Your task to perform on an android device: Turn on the flashlight Image 0: 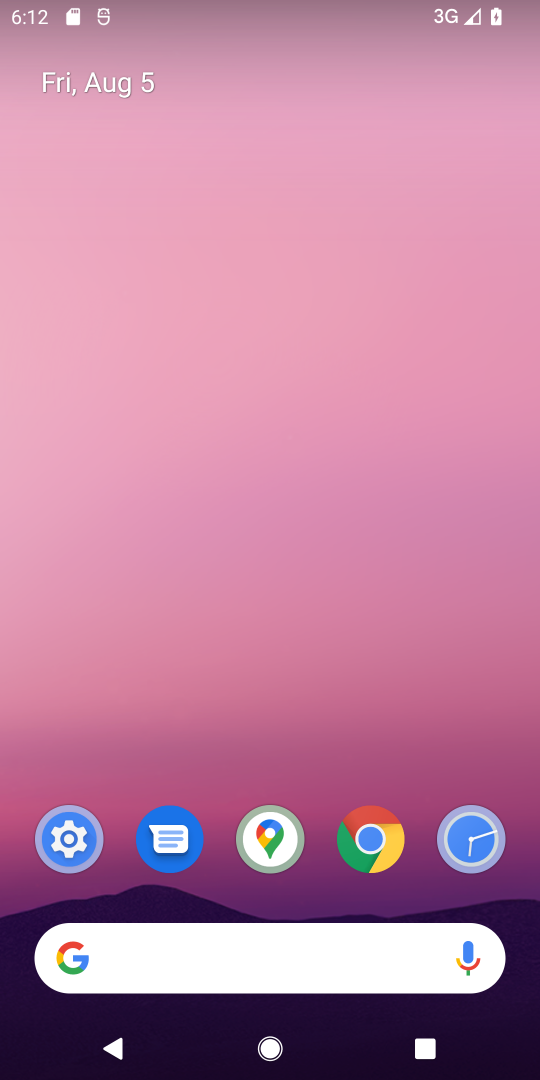
Step 0: drag from (276, 496) to (276, 111)
Your task to perform on an android device: Turn on the flashlight Image 1: 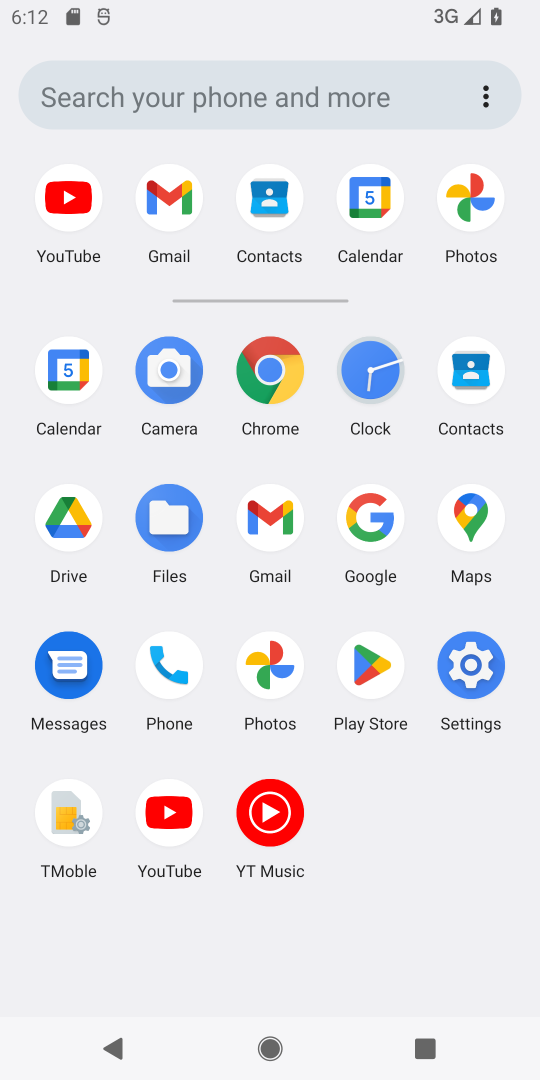
Step 1: click (468, 710)
Your task to perform on an android device: Turn on the flashlight Image 2: 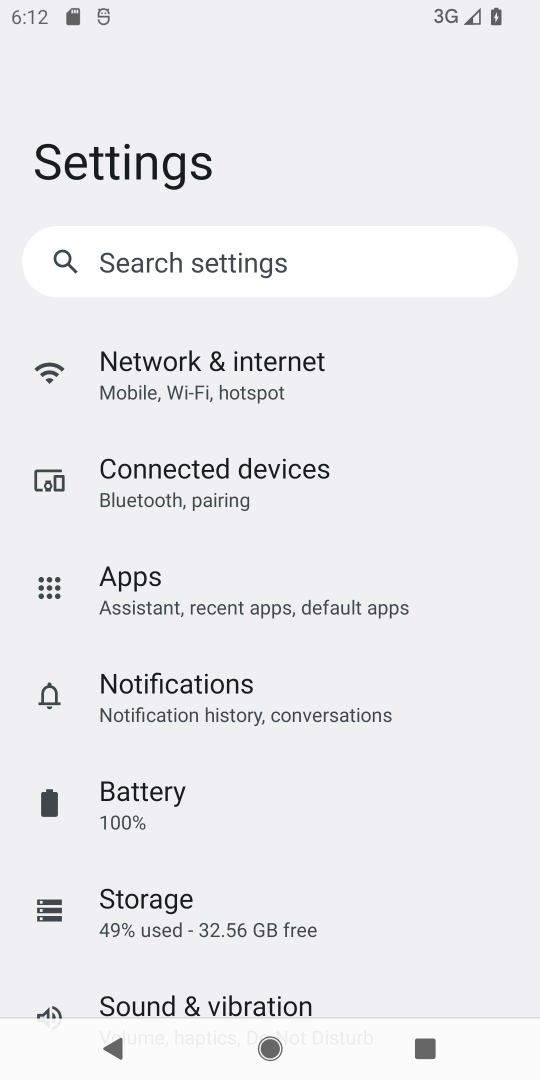
Step 2: task complete